Your task to perform on an android device: check battery use Image 0: 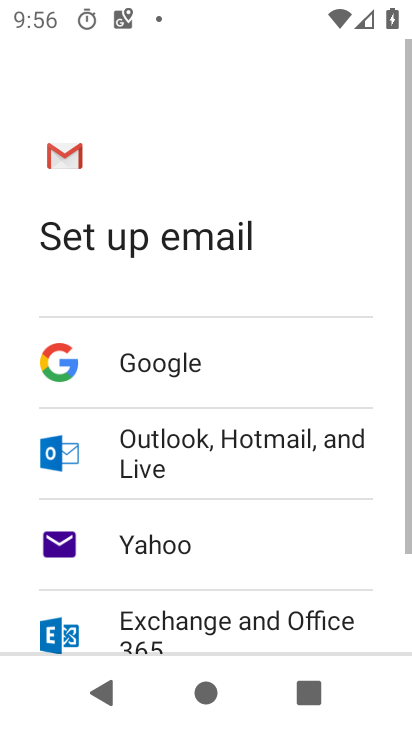
Step 0: press home button
Your task to perform on an android device: check battery use Image 1: 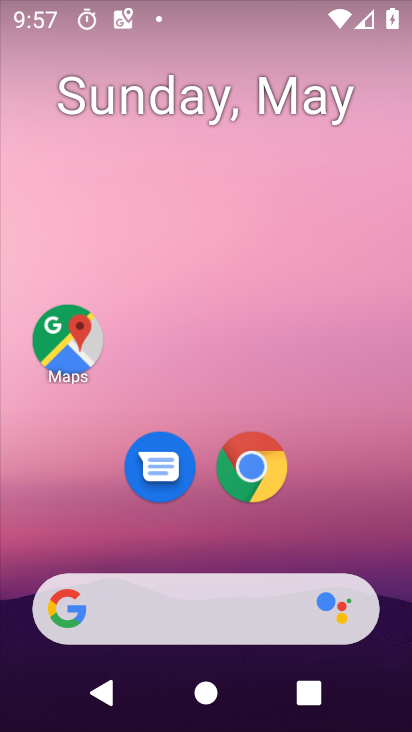
Step 1: drag from (199, 537) to (203, 210)
Your task to perform on an android device: check battery use Image 2: 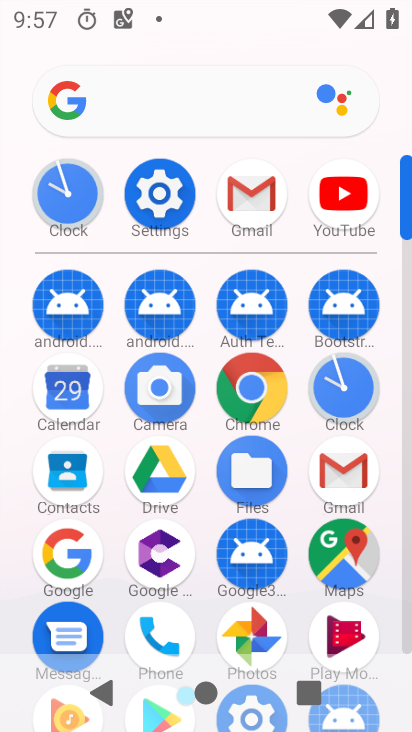
Step 2: click (185, 195)
Your task to perform on an android device: check battery use Image 3: 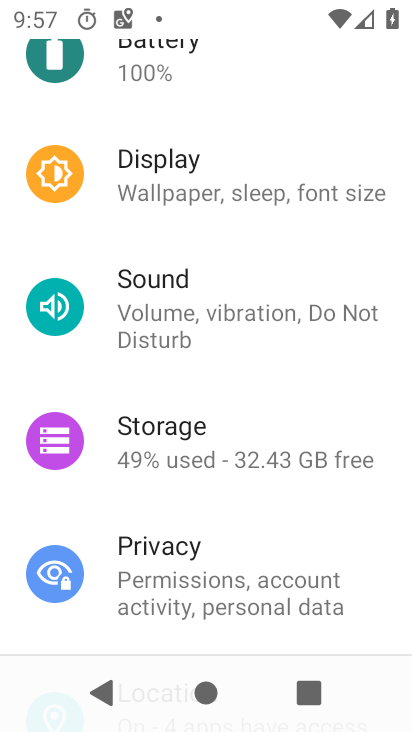
Step 3: drag from (210, 227) to (221, 451)
Your task to perform on an android device: check battery use Image 4: 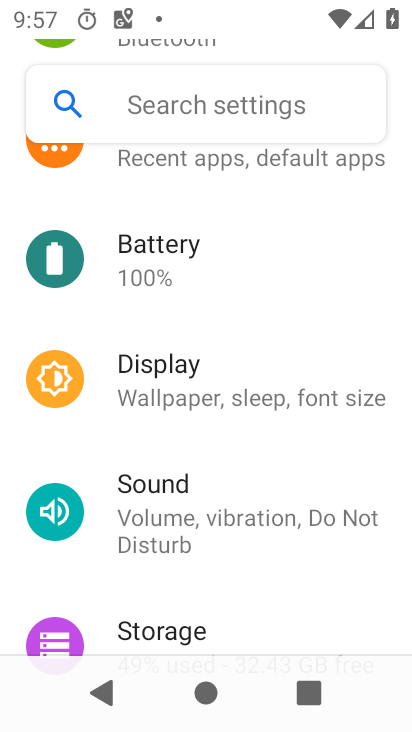
Step 4: click (178, 272)
Your task to perform on an android device: check battery use Image 5: 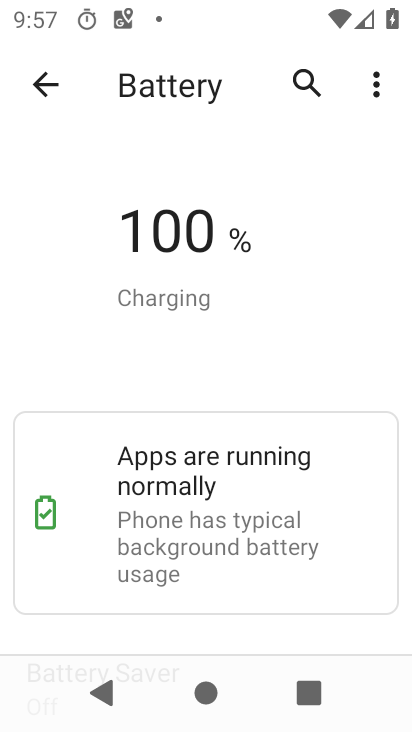
Step 5: click (376, 93)
Your task to perform on an android device: check battery use Image 6: 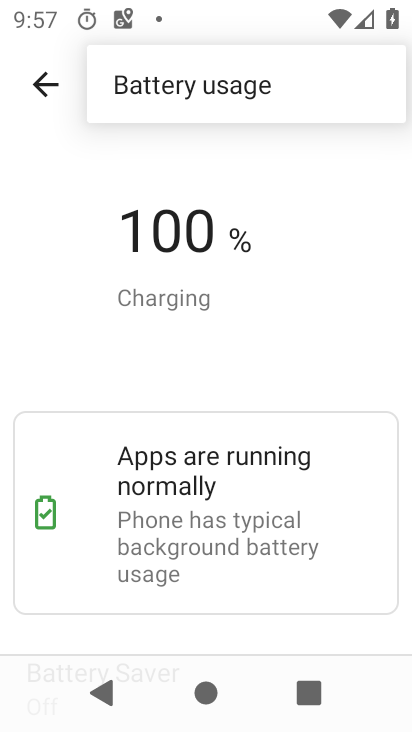
Step 6: click (314, 92)
Your task to perform on an android device: check battery use Image 7: 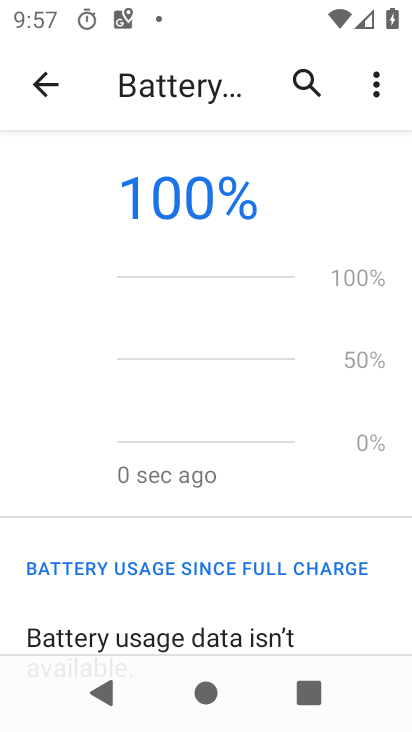
Step 7: task complete